Your task to perform on an android device: Add "razer huntsman" to the cart on ebay, then select checkout. Image 0: 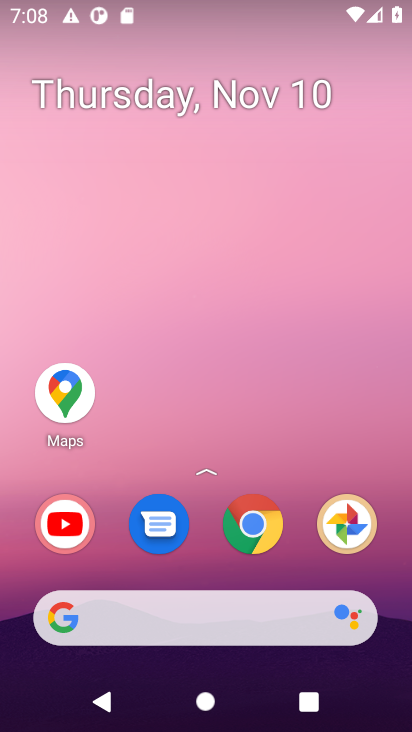
Step 0: click (229, 640)
Your task to perform on an android device: Add "razer huntsman" to the cart on ebay, then select checkout. Image 1: 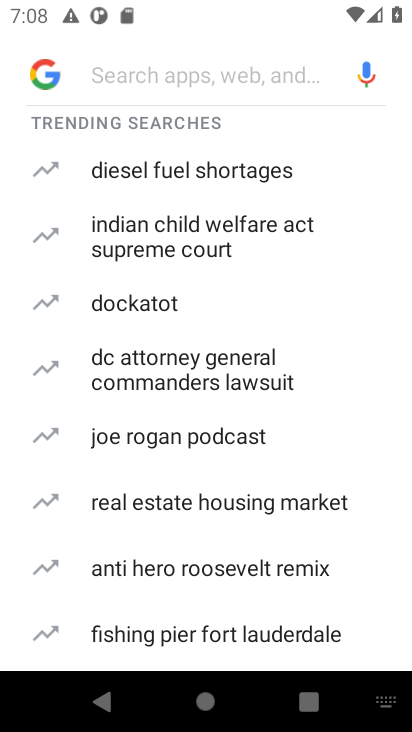
Step 1: type "ebay"
Your task to perform on an android device: Add "razer huntsman" to the cart on ebay, then select checkout. Image 2: 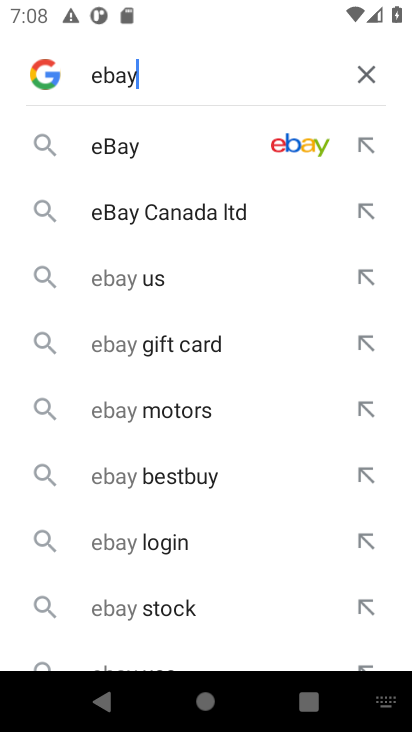
Step 2: click (280, 146)
Your task to perform on an android device: Add "razer huntsman" to the cart on ebay, then select checkout. Image 3: 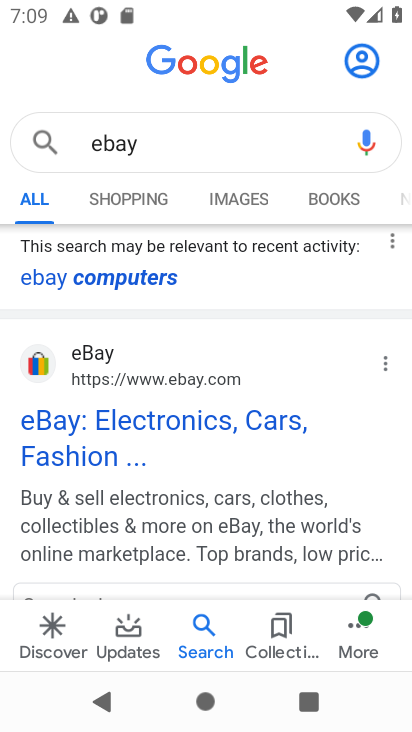
Step 3: drag from (204, 528) to (271, 183)
Your task to perform on an android device: Add "razer huntsman" to the cart on ebay, then select checkout. Image 4: 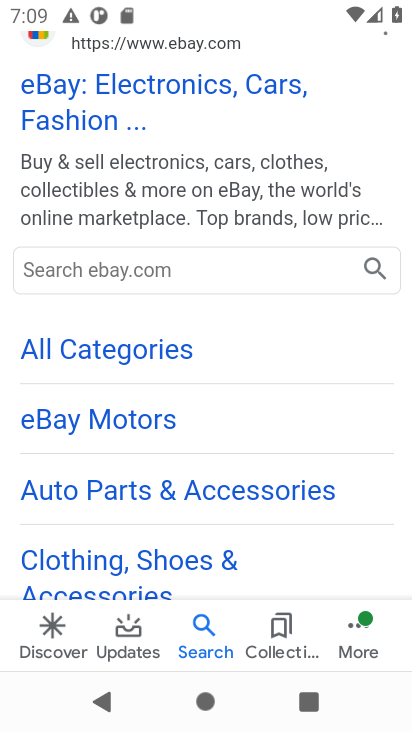
Step 4: click (58, 269)
Your task to perform on an android device: Add "razer huntsman" to the cart on ebay, then select checkout. Image 5: 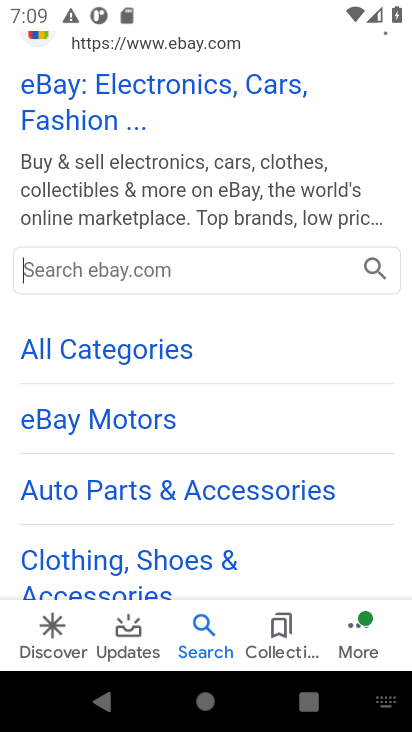
Step 5: type "razer huntsman"
Your task to perform on an android device: Add "razer huntsman" to the cart on ebay, then select checkout. Image 6: 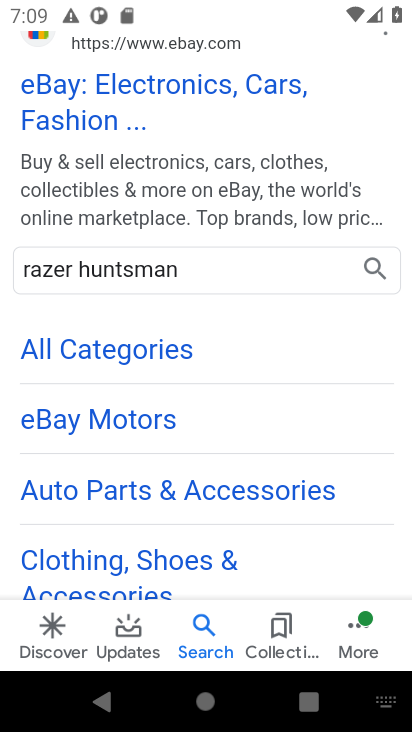
Step 6: click (377, 267)
Your task to perform on an android device: Add "razer huntsman" to the cart on ebay, then select checkout. Image 7: 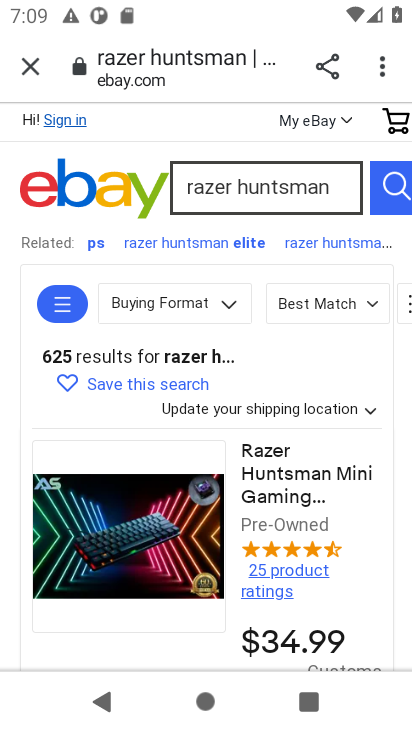
Step 7: drag from (345, 519) to (328, 270)
Your task to perform on an android device: Add "razer huntsman" to the cart on ebay, then select checkout. Image 8: 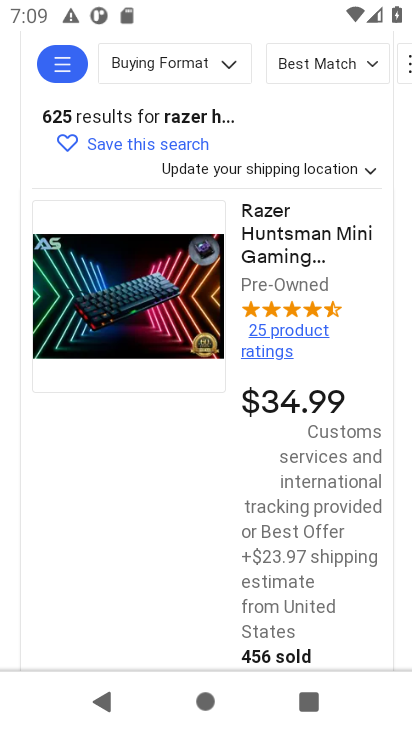
Step 8: click (304, 247)
Your task to perform on an android device: Add "razer huntsman" to the cart on ebay, then select checkout. Image 9: 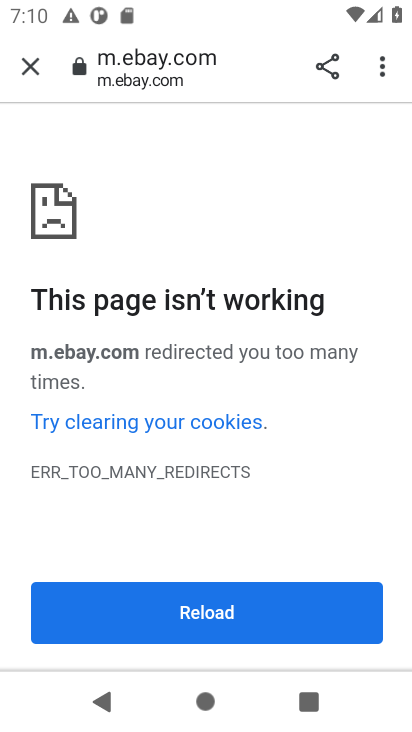
Step 9: task complete